Your task to perform on an android device: change text size in settings app Image 0: 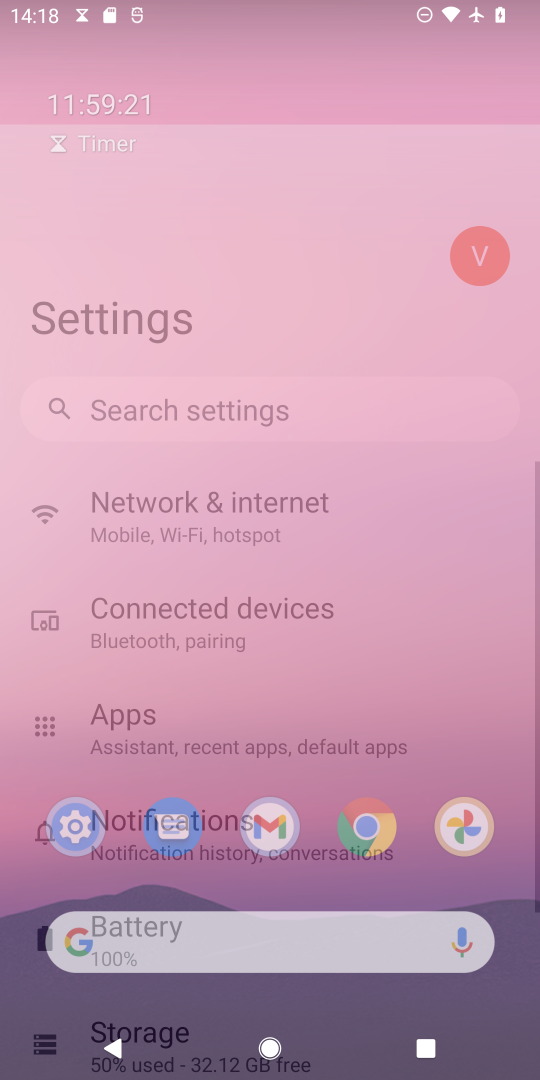
Step 0: press home button
Your task to perform on an android device: change text size in settings app Image 1: 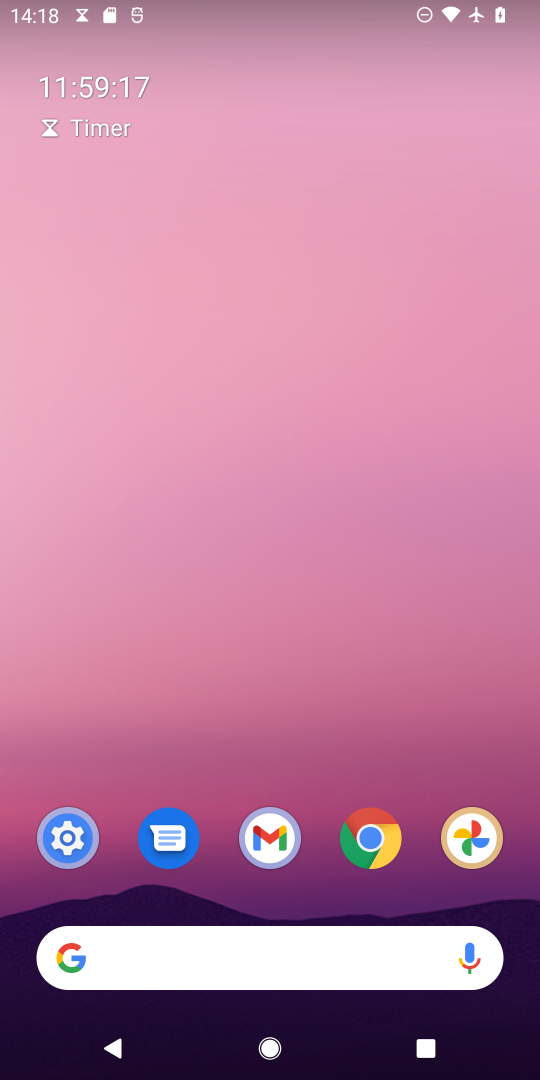
Step 1: click (70, 837)
Your task to perform on an android device: change text size in settings app Image 2: 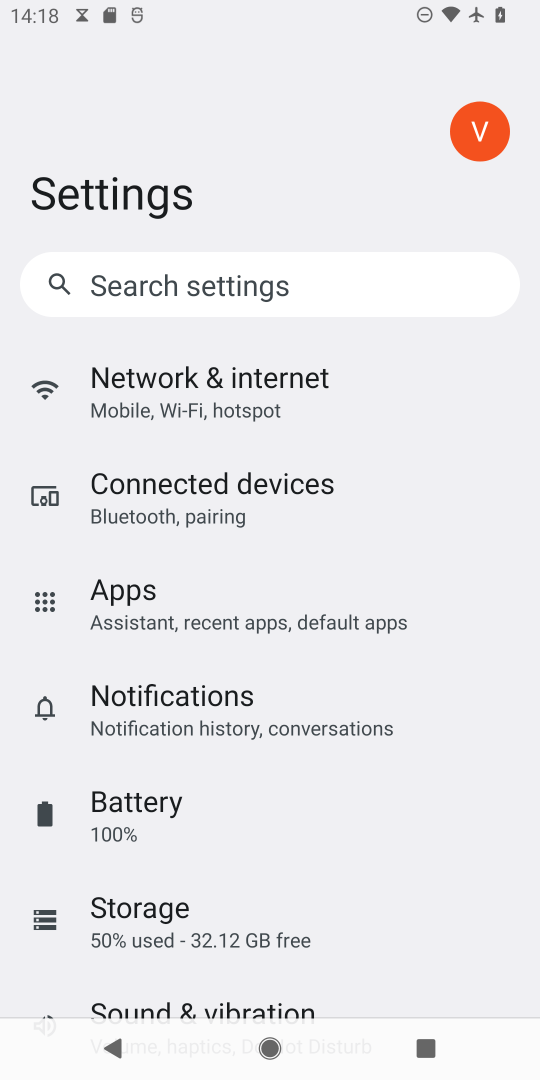
Step 2: drag from (384, 906) to (256, 377)
Your task to perform on an android device: change text size in settings app Image 3: 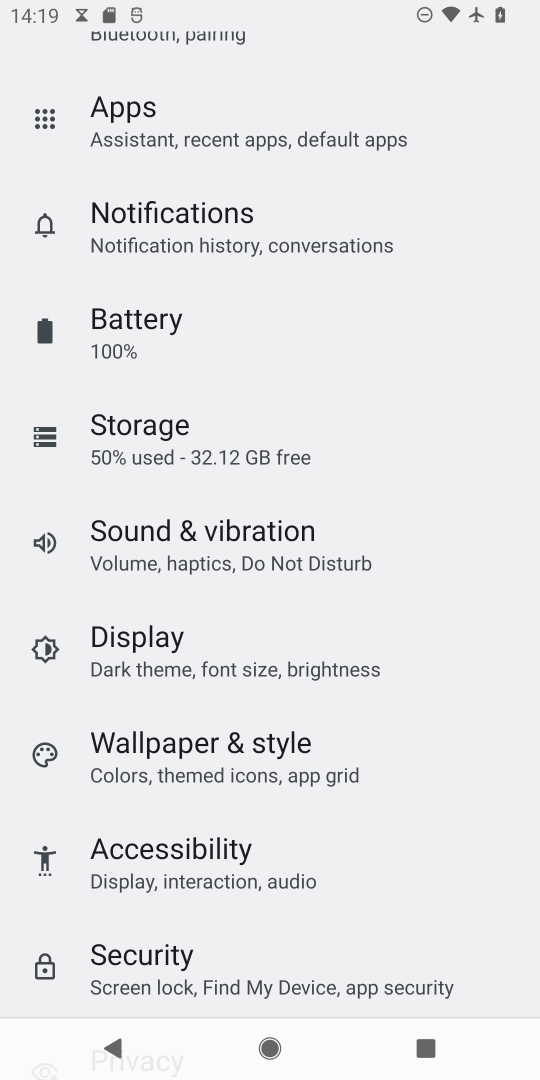
Step 3: click (123, 660)
Your task to perform on an android device: change text size in settings app Image 4: 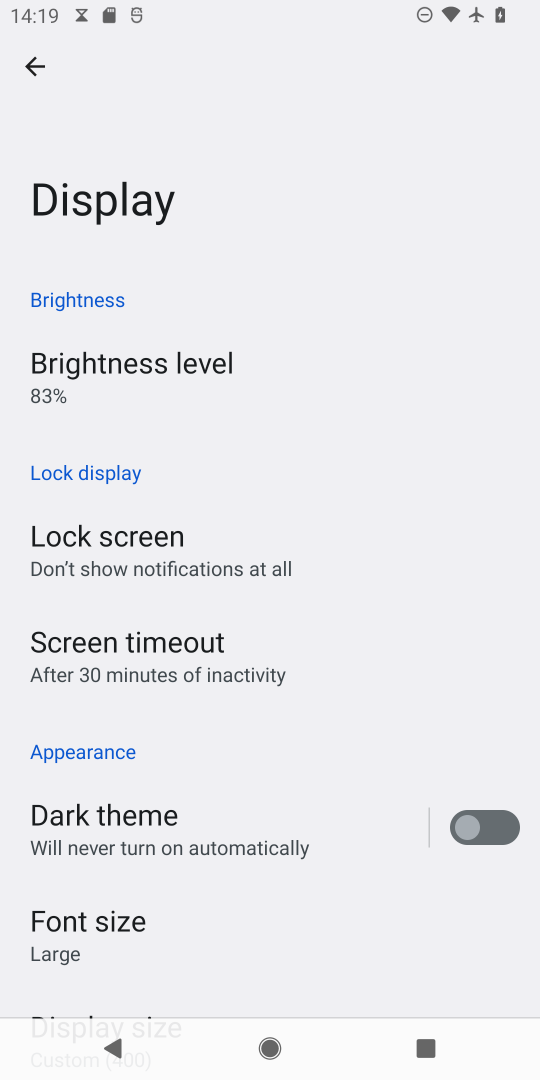
Step 4: click (98, 931)
Your task to perform on an android device: change text size in settings app Image 5: 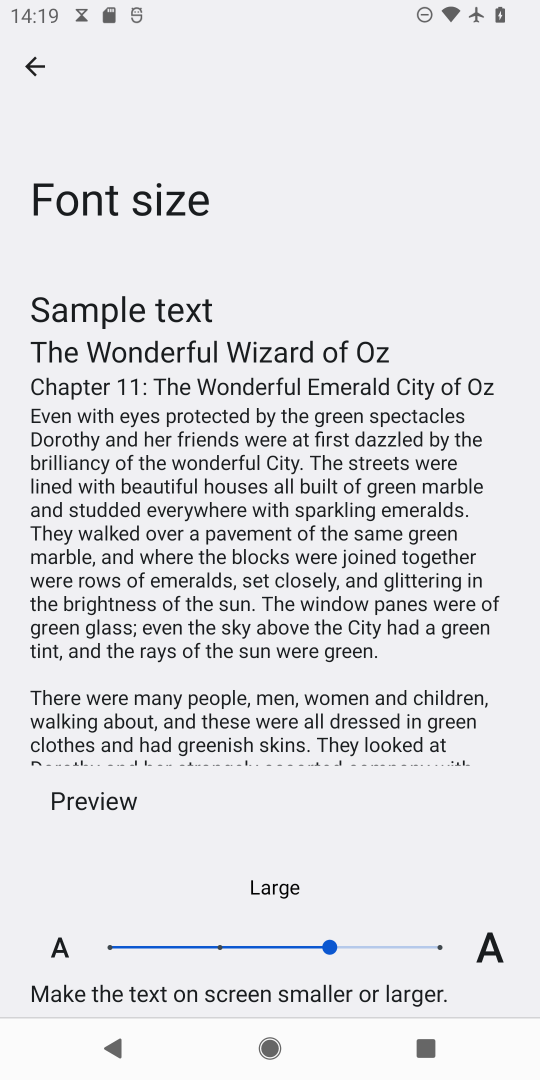
Step 5: click (439, 947)
Your task to perform on an android device: change text size in settings app Image 6: 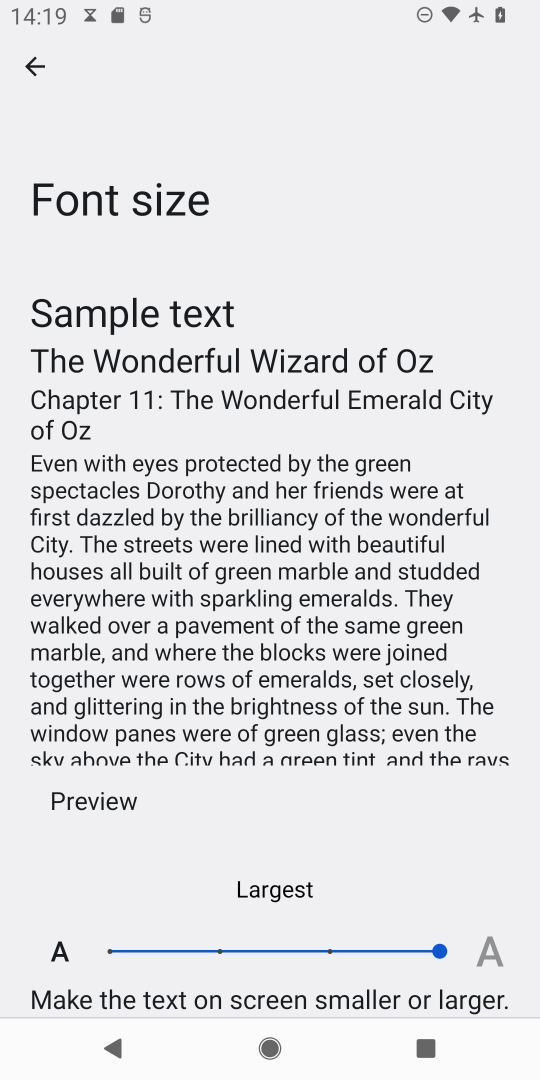
Step 6: task complete